Your task to perform on an android device: Open Google Maps Image 0: 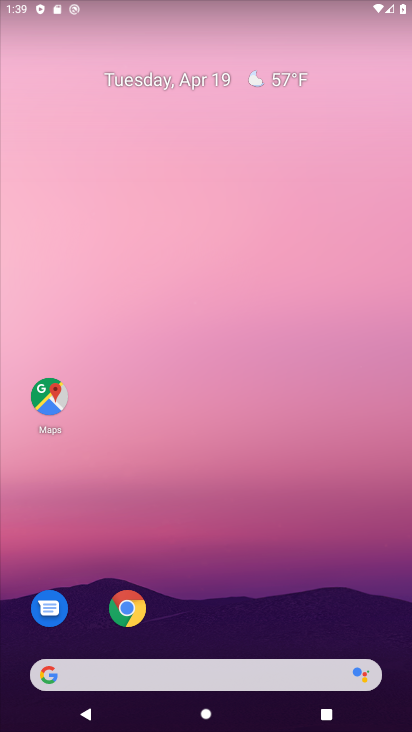
Step 0: click (48, 395)
Your task to perform on an android device: Open Google Maps Image 1: 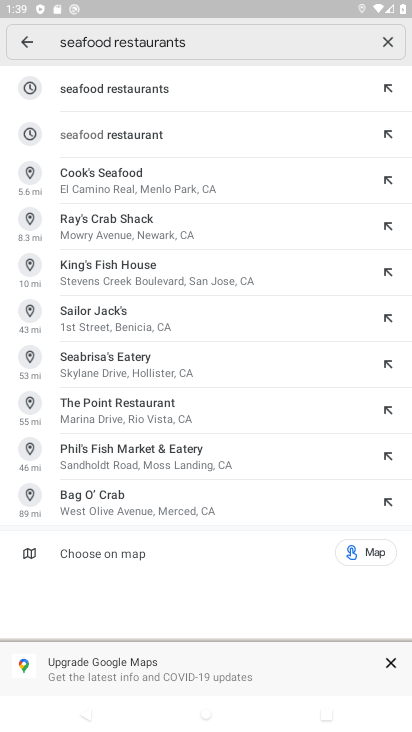
Step 1: task complete